Your task to perform on an android device: turn off javascript in the chrome app Image 0: 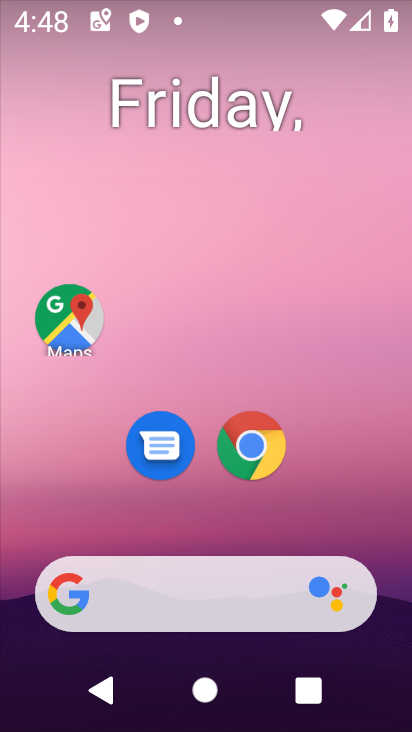
Step 0: click (255, 448)
Your task to perform on an android device: turn off javascript in the chrome app Image 1: 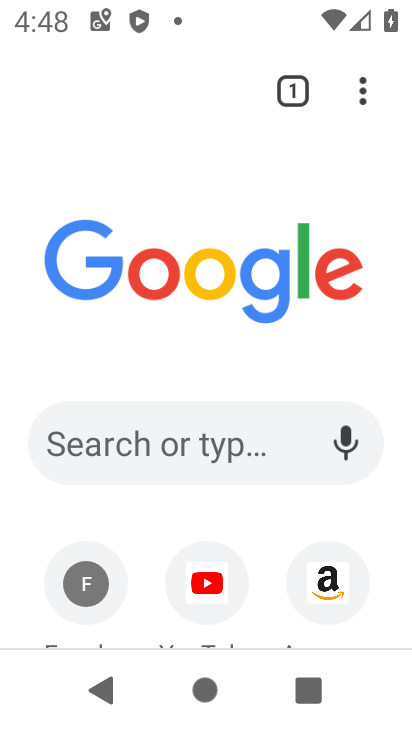
Step 1: click (364, 81)
Your task to perform on an android device: turn off javascript in the chrome app Image 2: 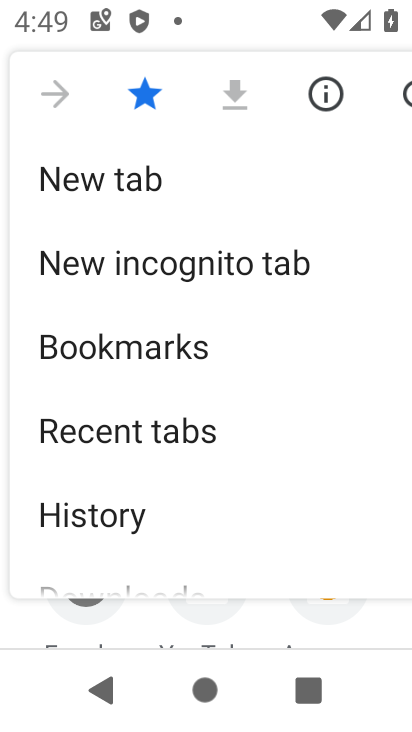
Step 2: drag from (159, 518) to (242, 200)
Your task to perform on an android device: turn off javascript in the chrome app Image 3: 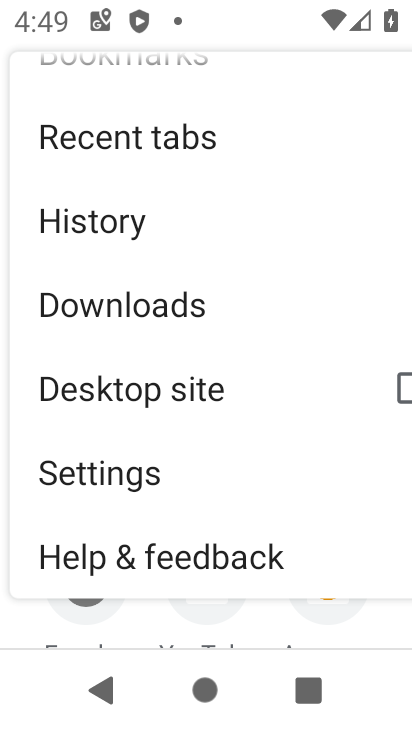
Step 3: click (154, 491)
Your task to perform on an android device: turn off javascript in the chrome app Image 4: 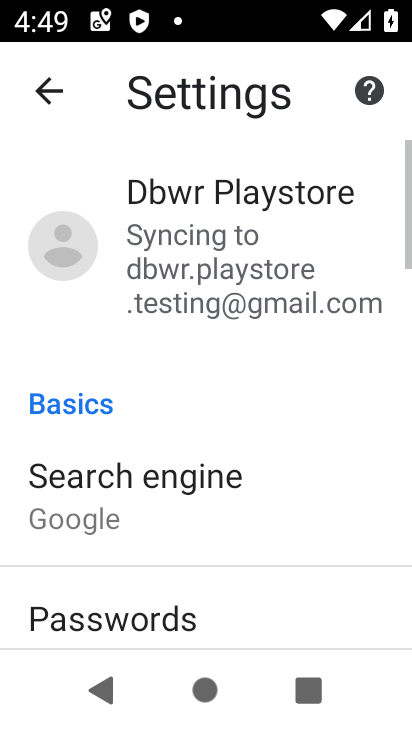
Step 4: drag from (154, 491) to (245, 154)
Your task to perform on an android device: turn off javascript in the chrome app Image 5: 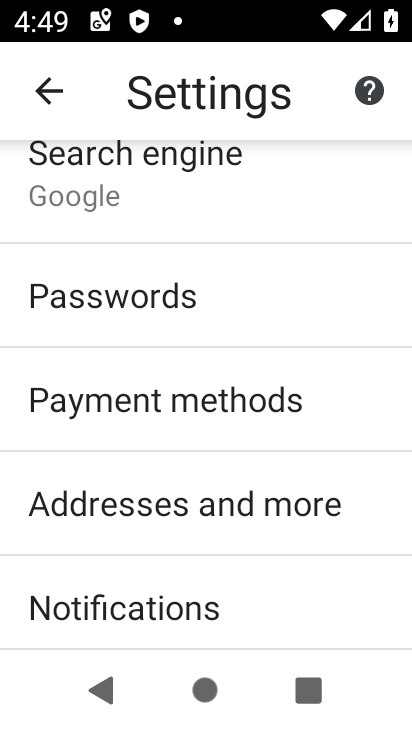
Step 5: drag from (220, 468) to (266, 312)
Your task to perform on an android device: turn off javascript in the chrome app Image 6: 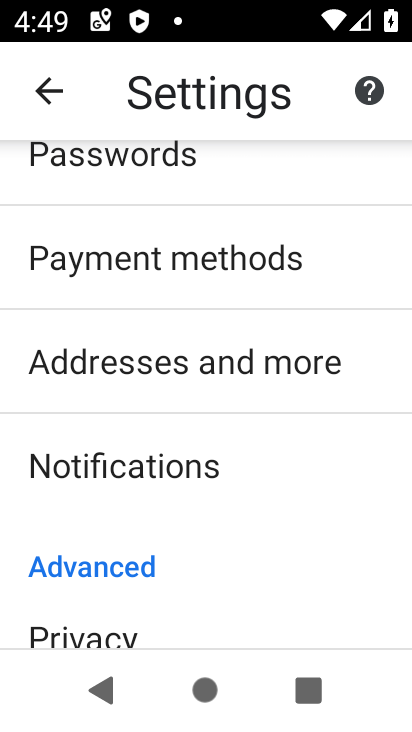
Step 6: drag from (197, 596) to (213, 406)
Your task to perform on an android device: turn off javascript in the chrome app Image 7: 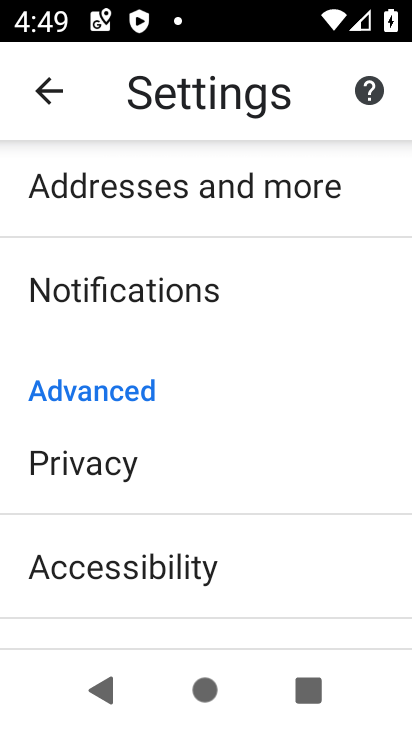
Step 7: drag from (171, 601) to (214, 434)
Your task to perform on an android device: turn off javascript in the chrome app Image 8: 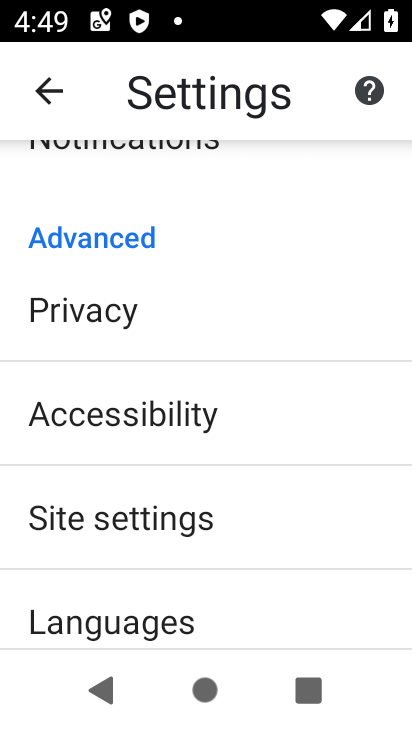
Step 8: click (171, 555)
Your task to perform on an android device: turn off javascript in the chrome app Image 9: 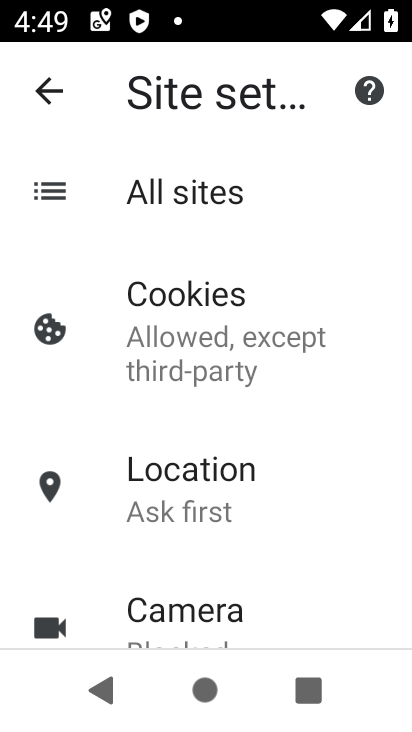
Step 9: drag from (192, 585) to (226, 409)
Your task to perform on an android device: turn off javascript in the chrome app Image 10: 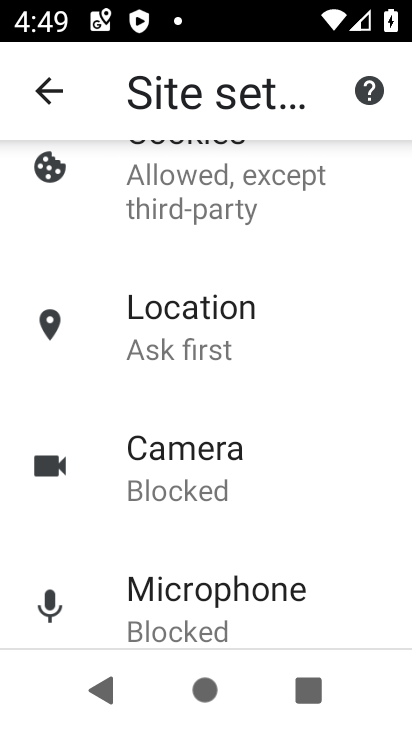
Step 10: drag from (206, 627) to (228, 381)
Your task to perform on an android device: turn off javascript in the chrome app Image 11: 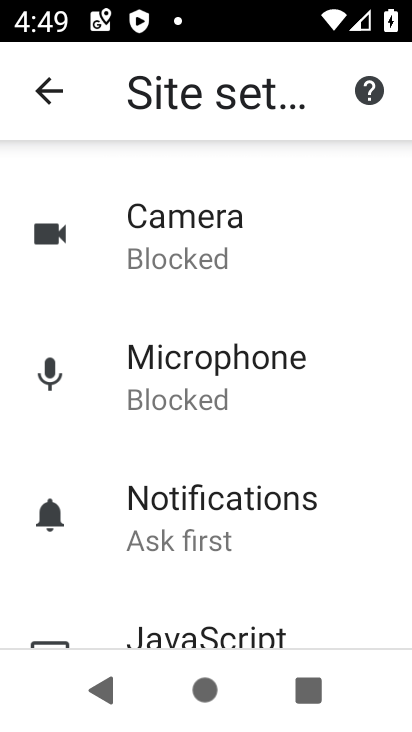
Step 11: click (229, 595)
Your task to perform on an android device: turn off javascript in the chrome app Image 12: 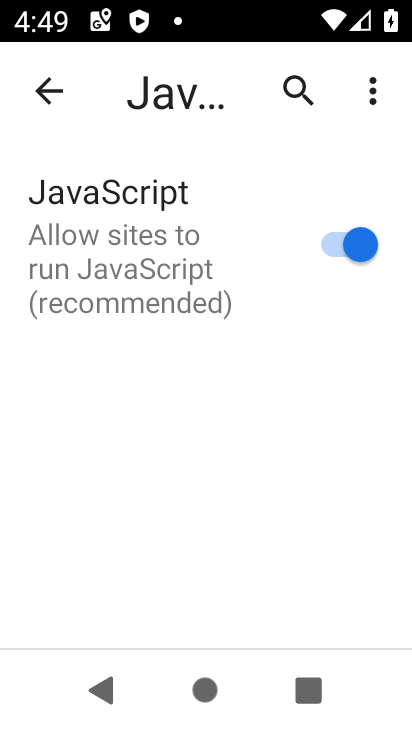
Step 12: click (344, 252)
Your task to perform on an android device: turn off javascript in the chrome app Image 13: 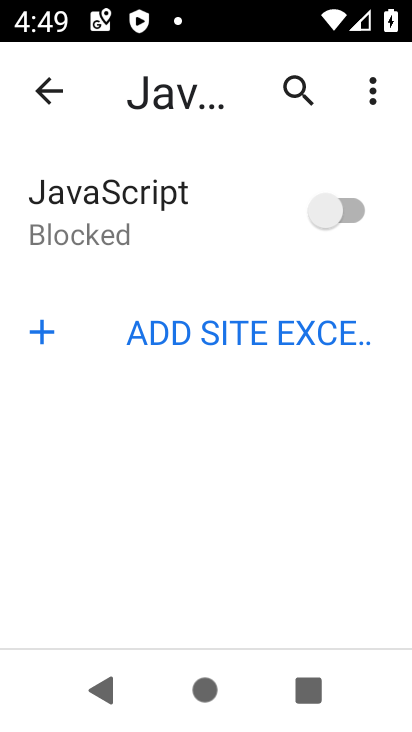
Step 13: task complete